Your task to perform on an android device: open a bookmark in the chrome app Image 0: 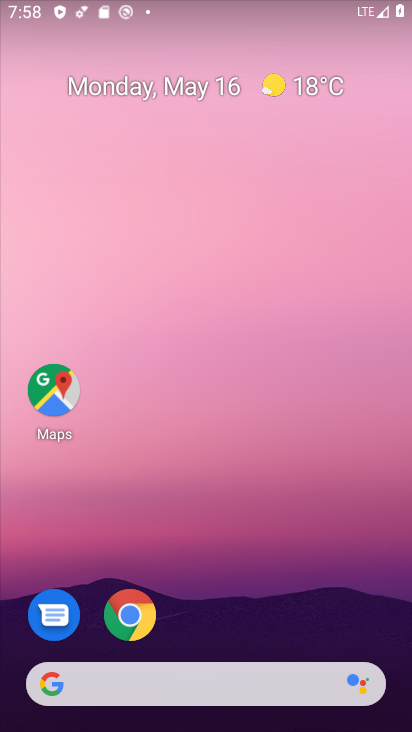
Step 0: drag from (198, 644) to (88, 75)
Your task to perform on an android device: open a bookmark in the chrome app Image 1: 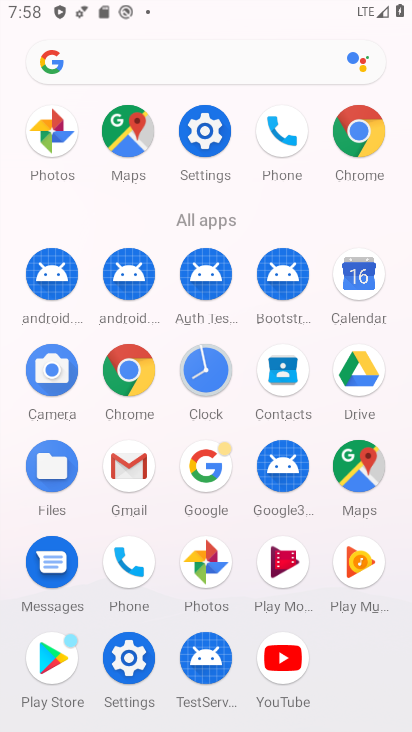
Step 1: click (358, 143)
Your task to perform on an android device: open a bookmark in the chrome app Image 2: 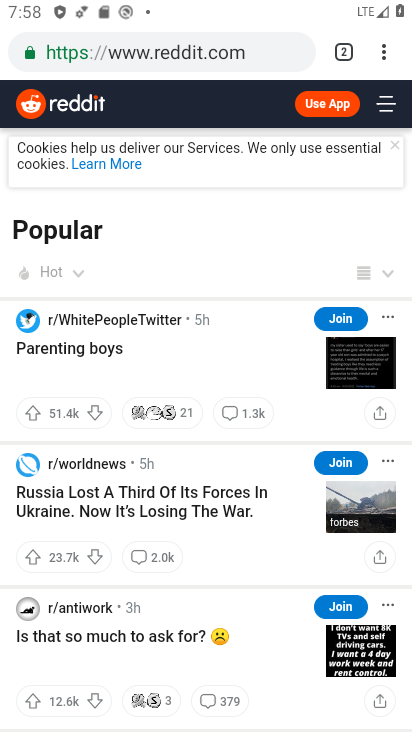
Step 2: task complete